Your task to perform on an android device: Open Google Maps and go to "Timeline" Image 0: 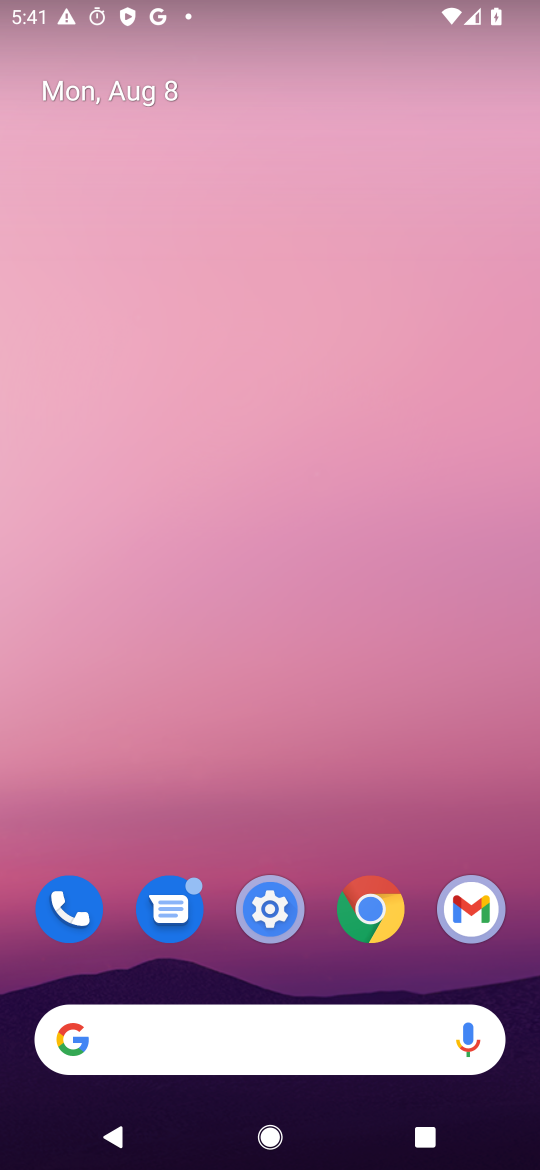
Step 0: drag from (291, 1000) to (483, 168)
Your task to perform on an android device: Open Google Maps and go to "Timeline" Image 1: 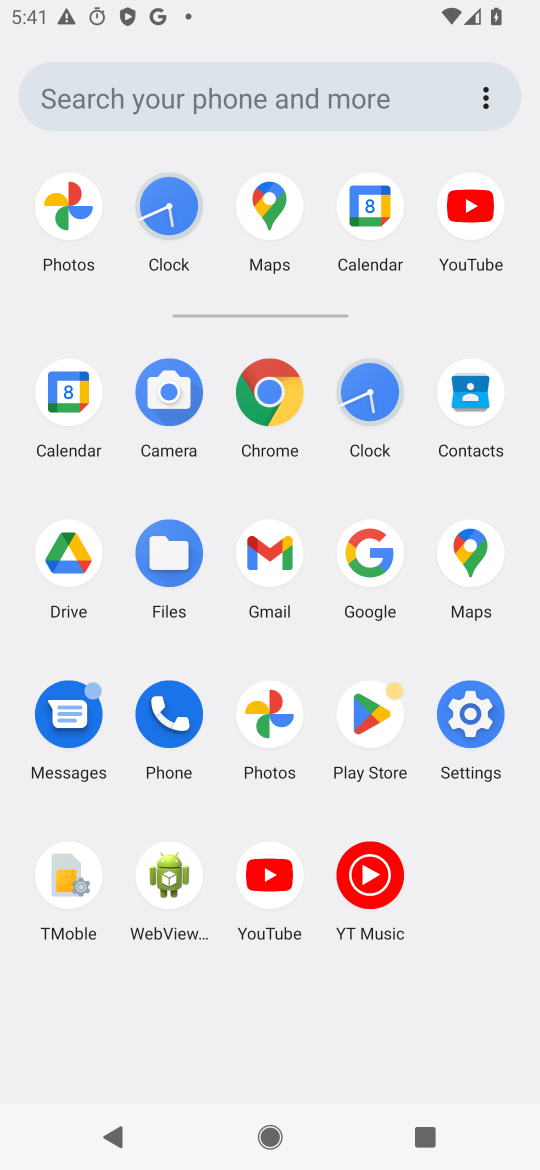
Step 1: click (478, 554)
Your task to perform on an android device: Open Google Maps and go to "Timeline" Image 2: 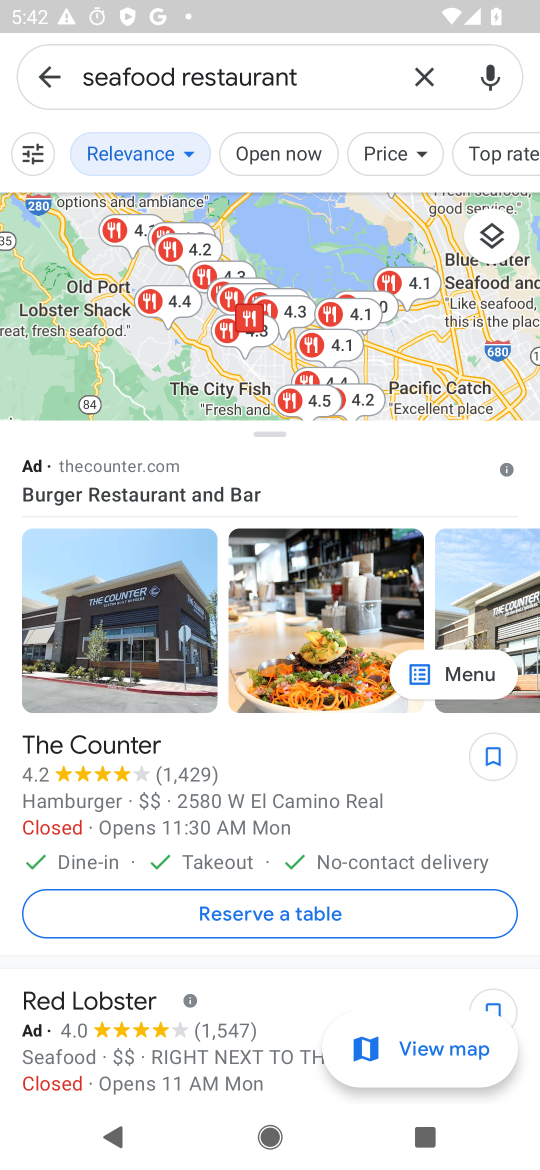
Step 2: click (50, 73)
Your task to perform on an android device: Open Google Maps and go to "Timeline" Image 3: 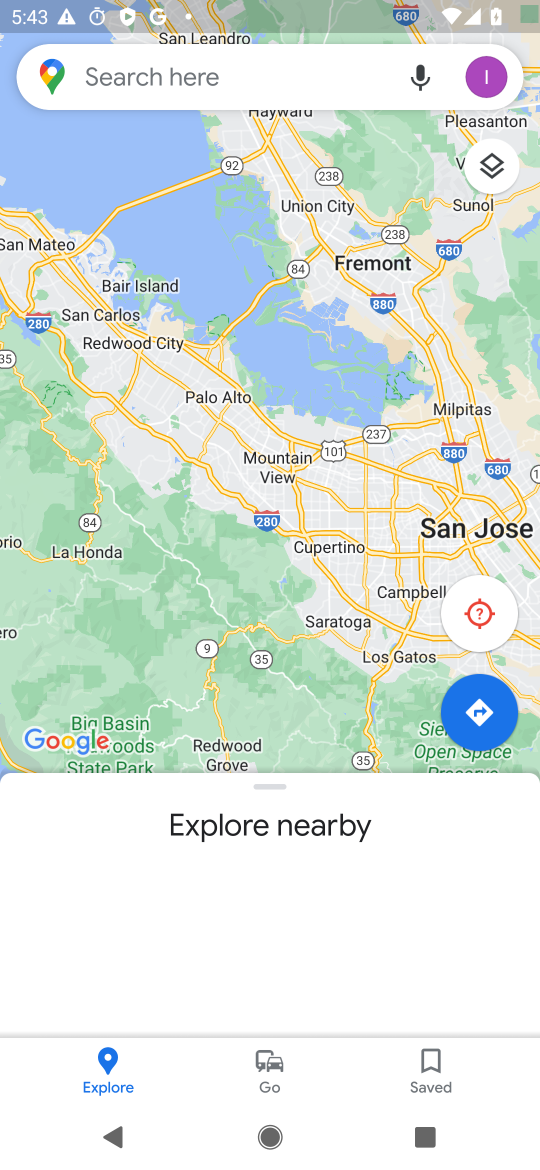
Step 3: click (490, 63)
Your task to perform on an android device: Open Google Maps and go to "Timeline" Image 4: 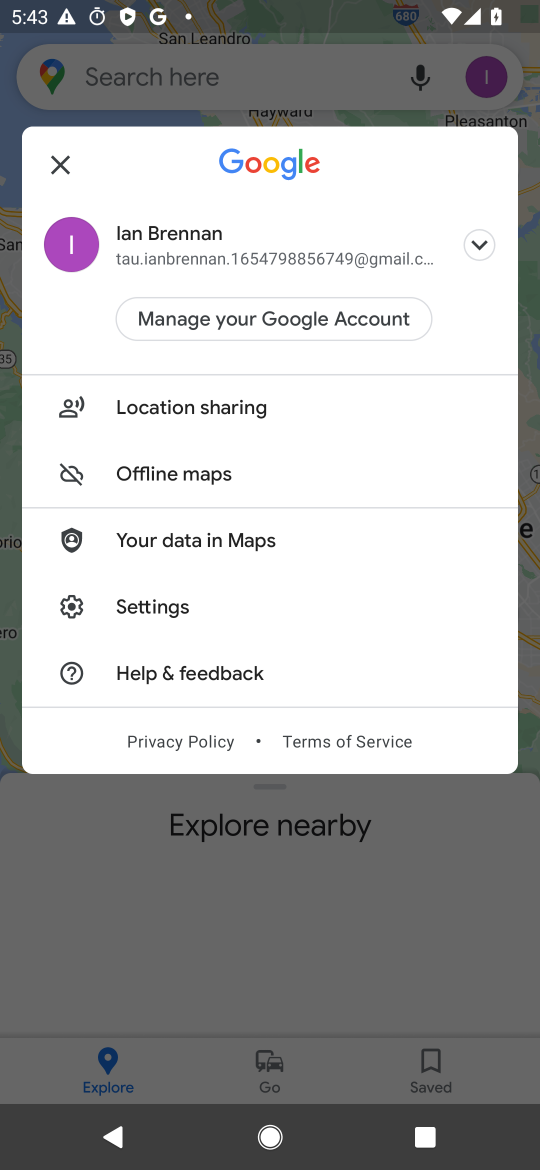
Step 4: task complete